Your task to perform on an android device: Open settings on Google Maps Image 0: 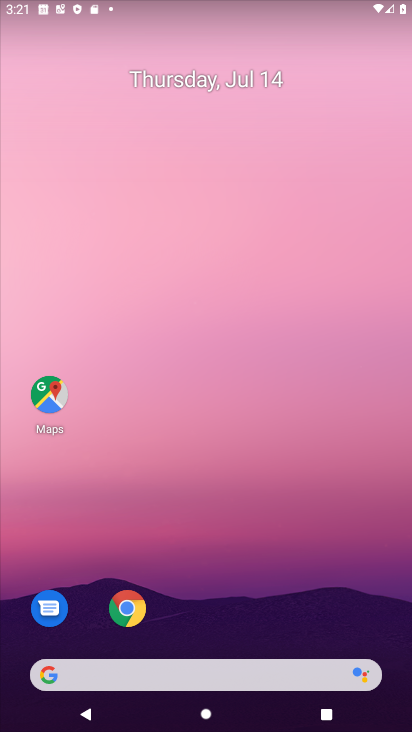
Step 0: click (54, 400)
Your task to perform on an android device: Open settings on Google Maps Image 1: 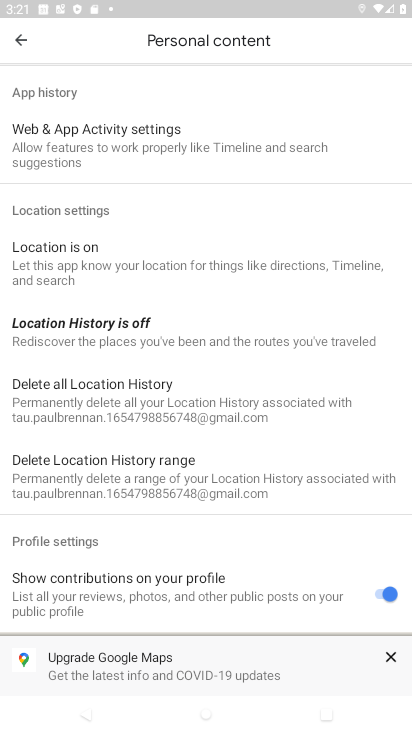
Step 1: click (23, 46)
Your task to perform on an android device: Open settings on Google Maps Image 2: 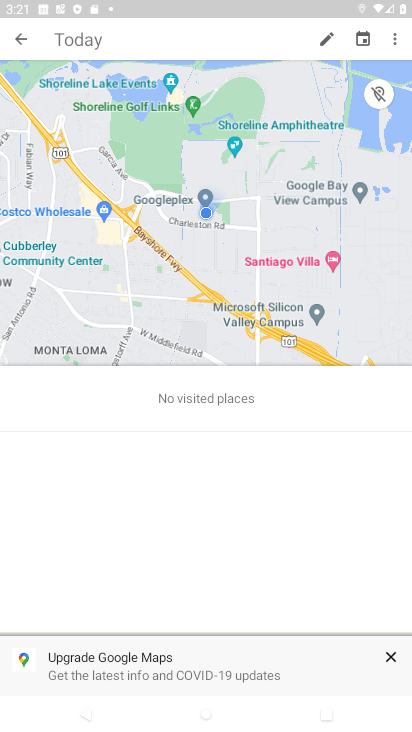
Step 2: click (24, 46)
Your task to perform on an android device: Open settings on Google Maps Image 3: 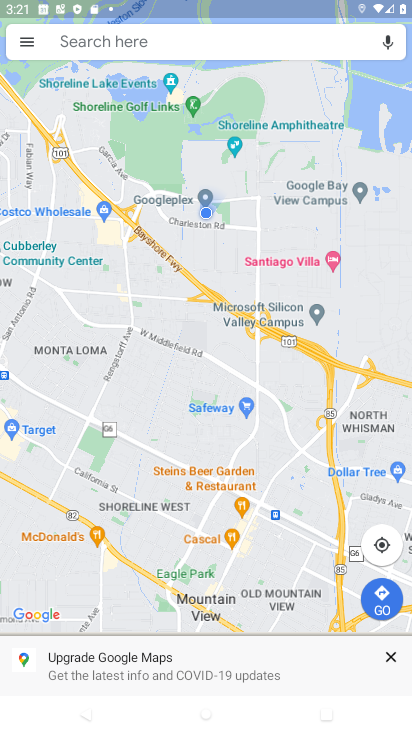
Step 3: click (24, 46)
Your task to perform on an android device: Open settings on Google Maps Image 4: 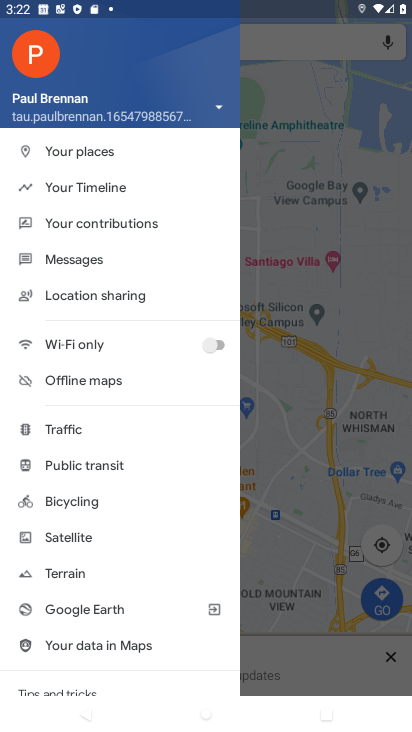
Step 4: drag from (77, 382) to (78, 202)
Your task to perform on an android device: Open settings on Google Maps Image 5: 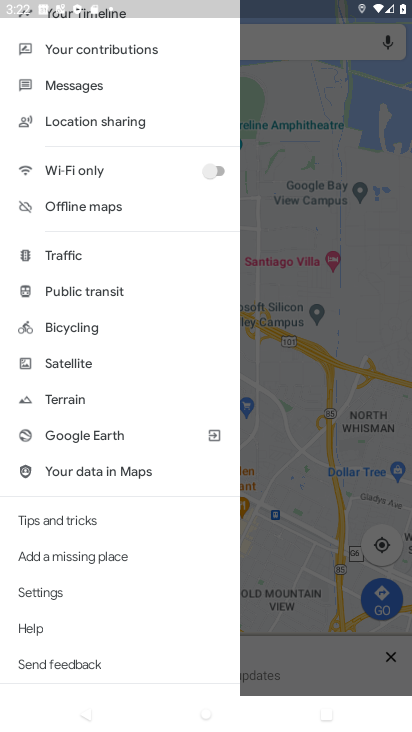
Step 5: click (58, 593)
Your task to perform on an android device: Open settings on Google Maps Image 6: 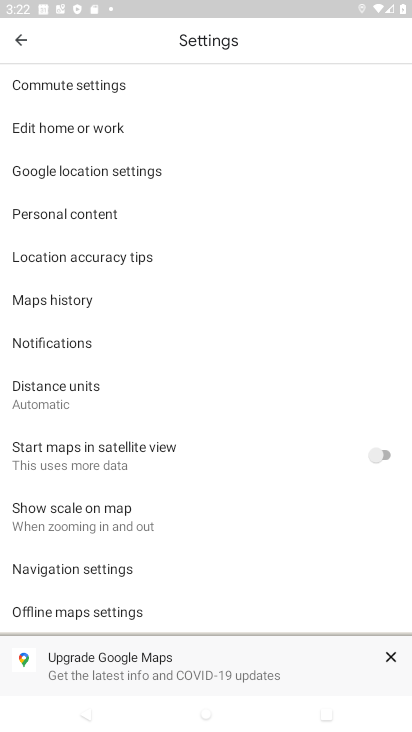
Step 6: task complete